Your task to perform on an android device: Show me productivity apps on the Play Store Image 0: 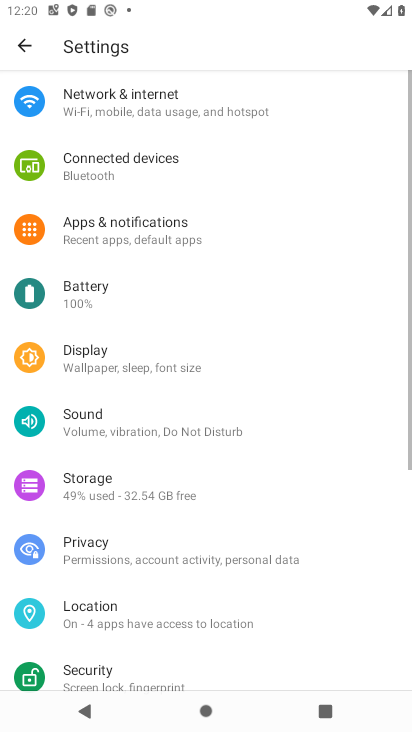
Step 0: press home button
Your task to perform on an android device: Show me productivity apps on the Play Store Image 1: 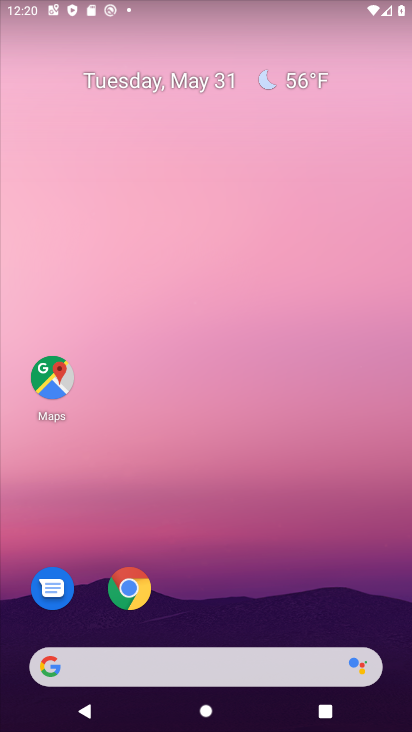
Step 1: drag from (178, 617) to (216, 149)
Your task to perform on an android device: Show me productivity apps on the Play Store Image 2: 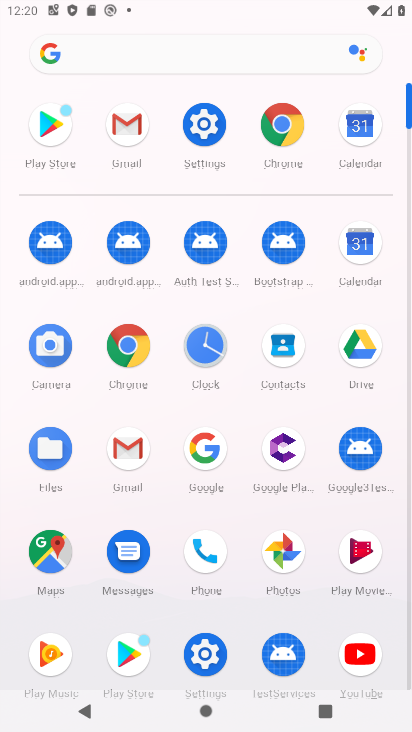
Step 2: click (113, 654)
Your task to perform on an android device: Show me productivity apps on the Play Store Image 3: 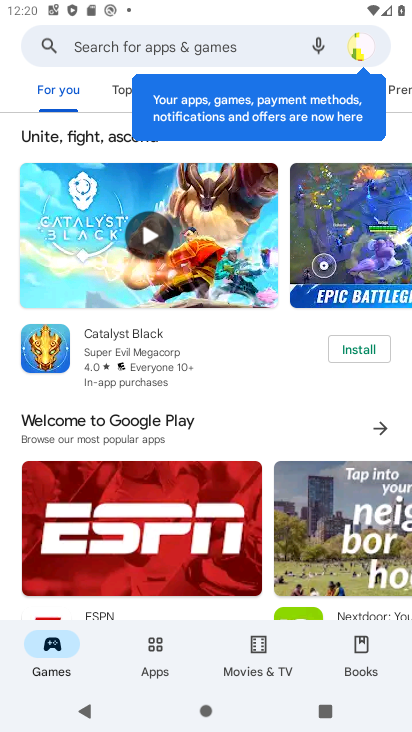
Step 3: click (153, 655)
Your task to perform on an android device: Show me productivity apps on the Play Store Image 4: 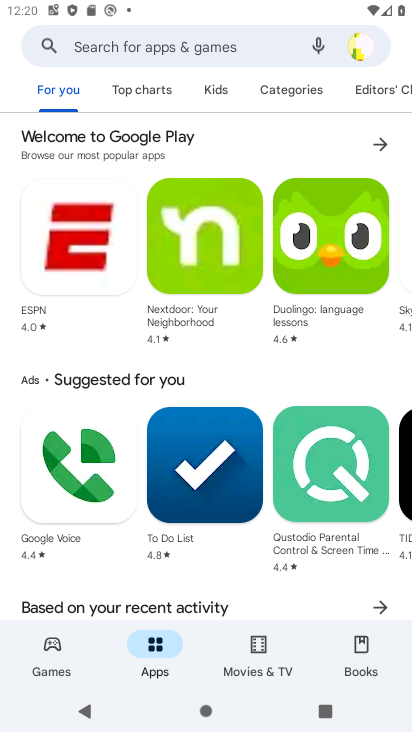
Step 4: click (304, 98)
Your task to perform on an android device: Show me productivity apps on the Play Store Image 5: 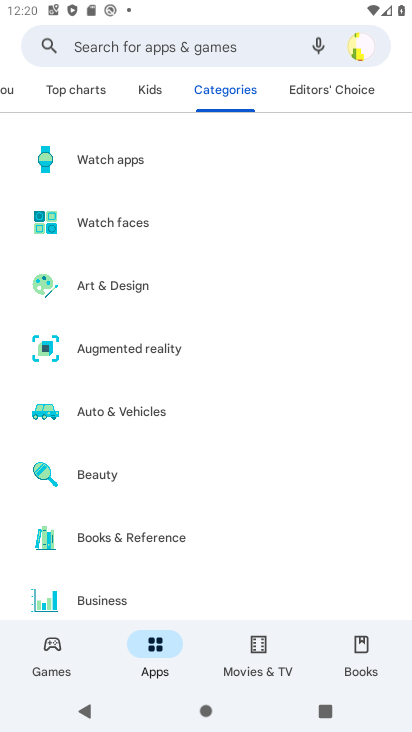
Step 5: drag from (171, 552) to (223, 138)
Your task to perform on an android device: Show me productivity apps on the Play Store Image 6: 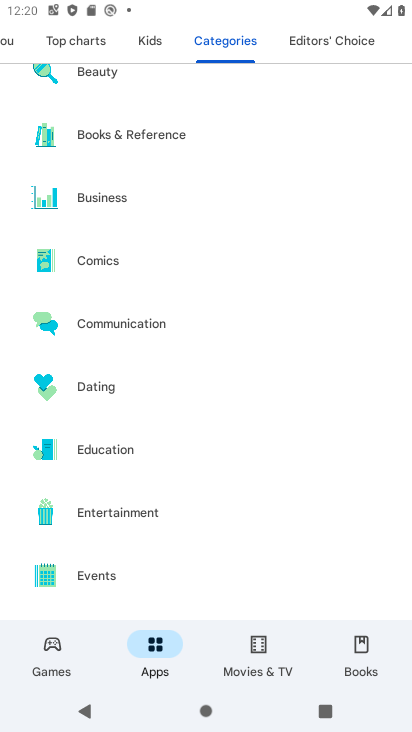
Step 6: drag from (133, 543) to (146, 185)
Your task to perform on an android device: Show me productivity apps on the Play Store Image 7: 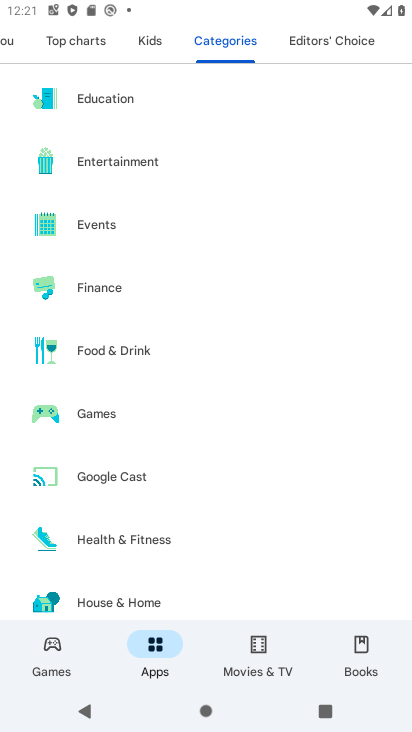
Step 7: drag from (121, 565) to (152, 367)
Your task to perform on an android device: Show me productivity apps on the Play Store Image 8: 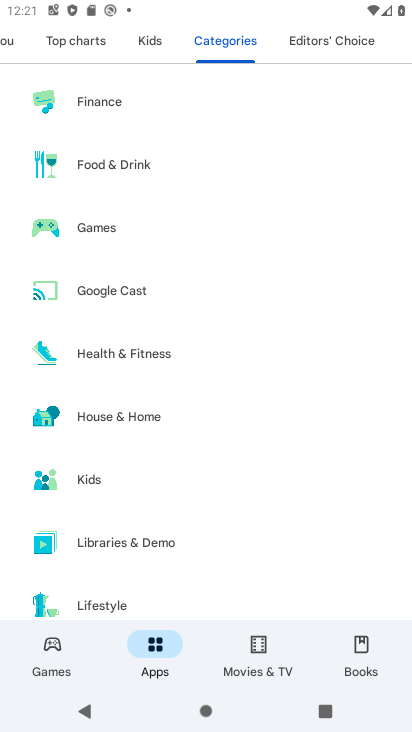
Step 8: drag from (121, 567) to (187, 257)
Your task to perform on an android device: Show me productivity apps on the Play Store Image 9: 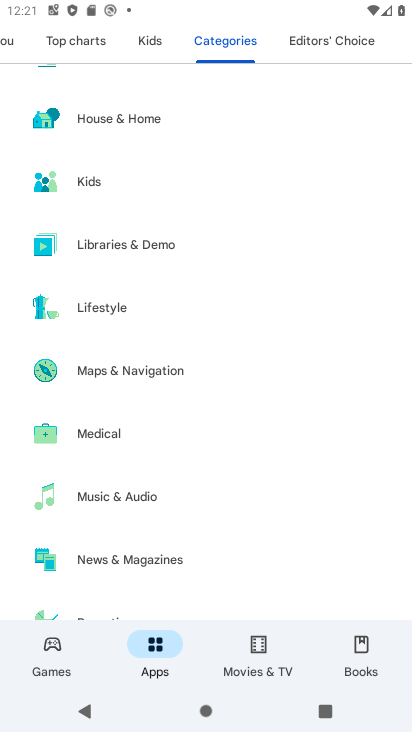
Step 9: drag from (149, 561) to (148, 344)
Your task to perform on an android device: Show me productivity apps on the Play Store Image 10: 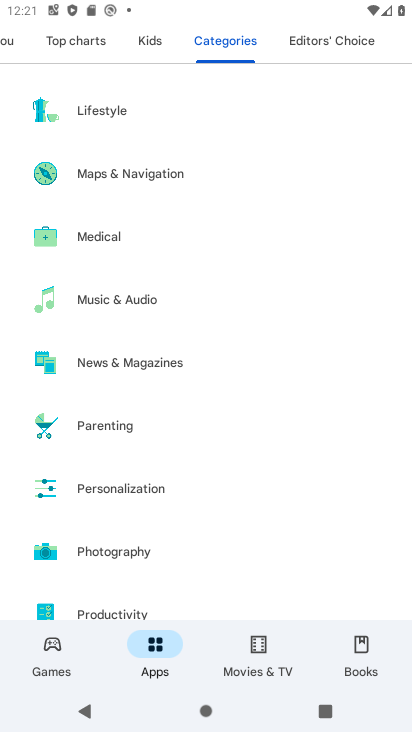
Step 10: click (113, 611)
Your task to perform on an android device: Show me productivity apps on the Play Store Image 11: 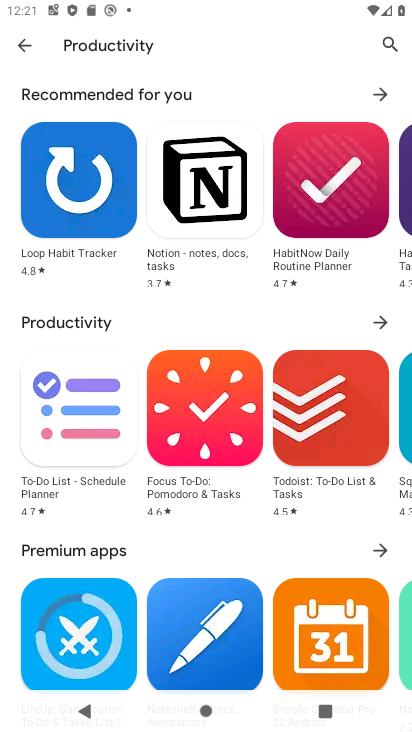
Step 11: task complete